Your task to perform on an android device: turn pop-ups on in chrome Image 0: 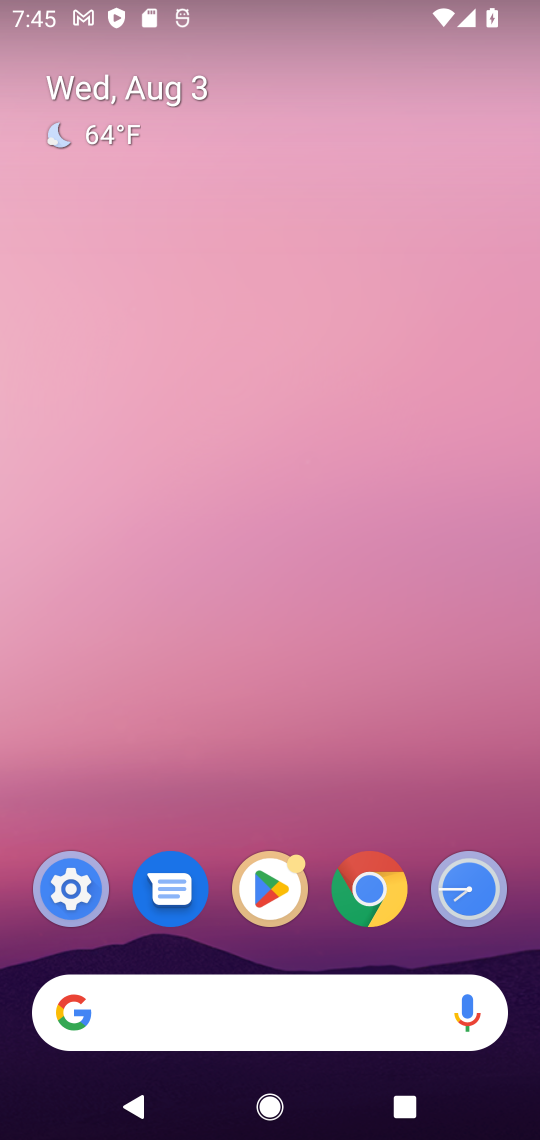
Step 0: click (391, 897)
Your task to perform on an android device: turn pop-ups on in chrome Image 1: 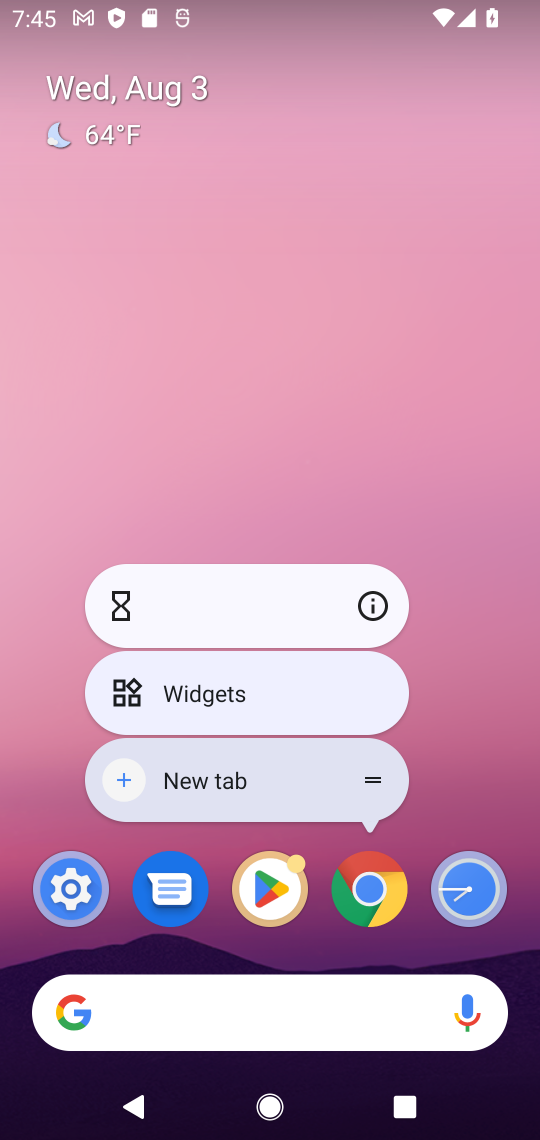
Step 1: click (377, 884)
Your task to perform on an android device: turn pop-ups on in chrome Image 2: 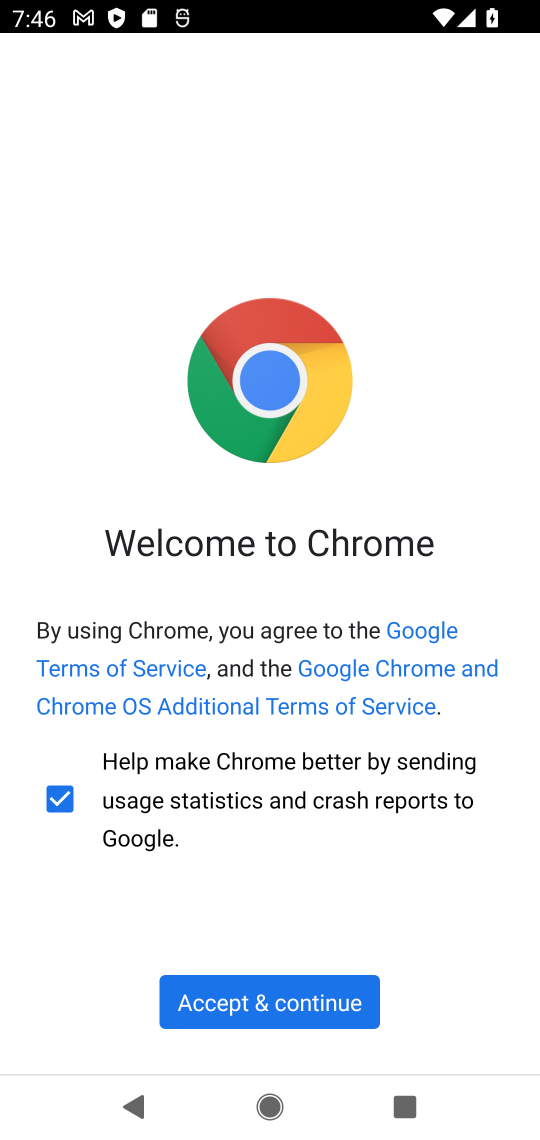
Step 2: click (286, 986)
Your task to perform on an android device: turn pop-ups on in chrome Image 3: 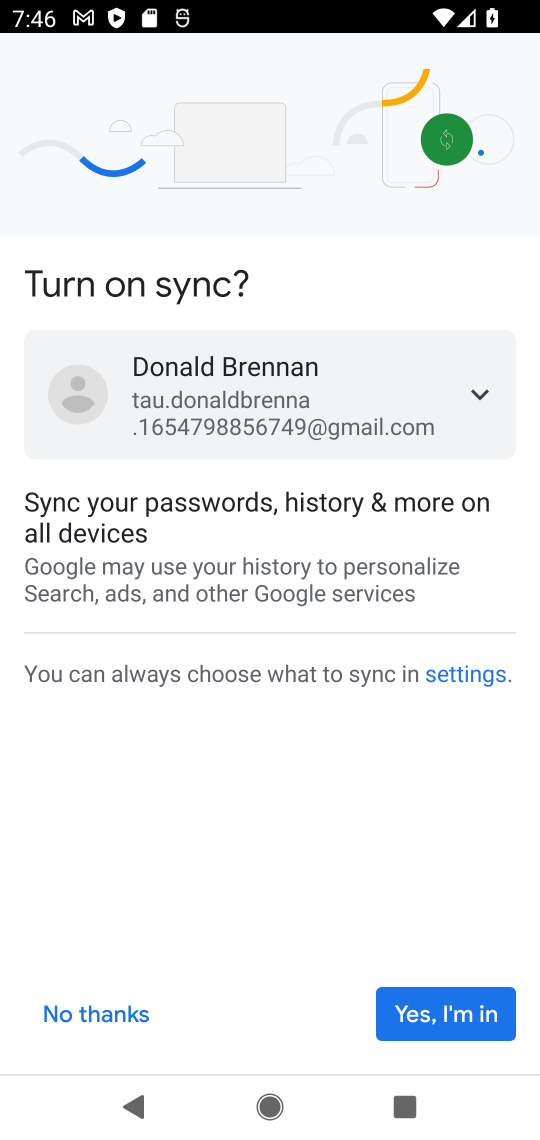
Step 3: click (469, 1019)
Your task to perform on an android device: turn pop-ups on in chrome Image 4: 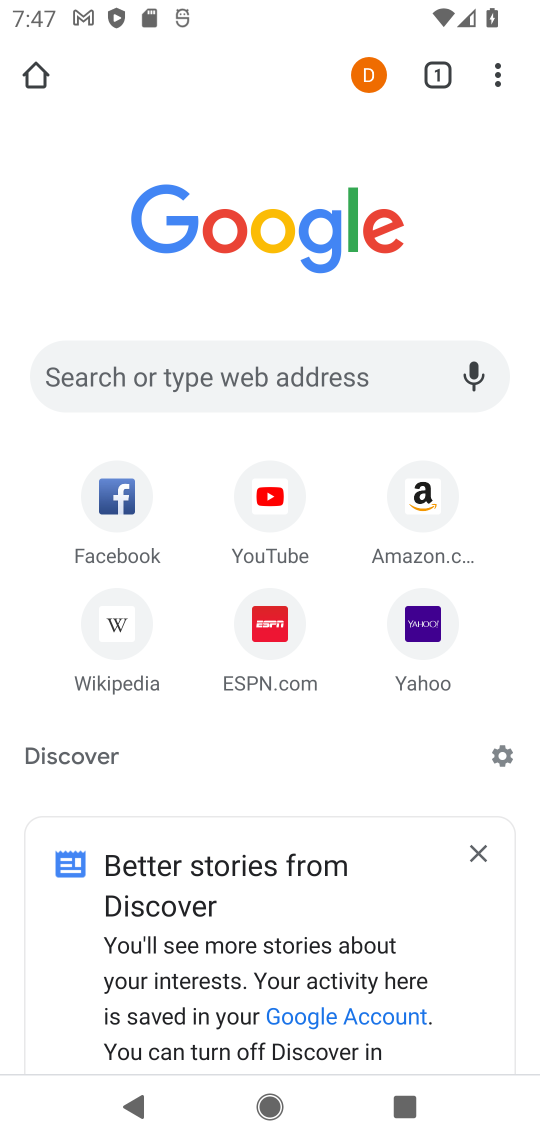
Step 4: drag from (501, 63) to (318, 700)
Your task to perform on an android device: turn pop-ups on in chrome Image 5: 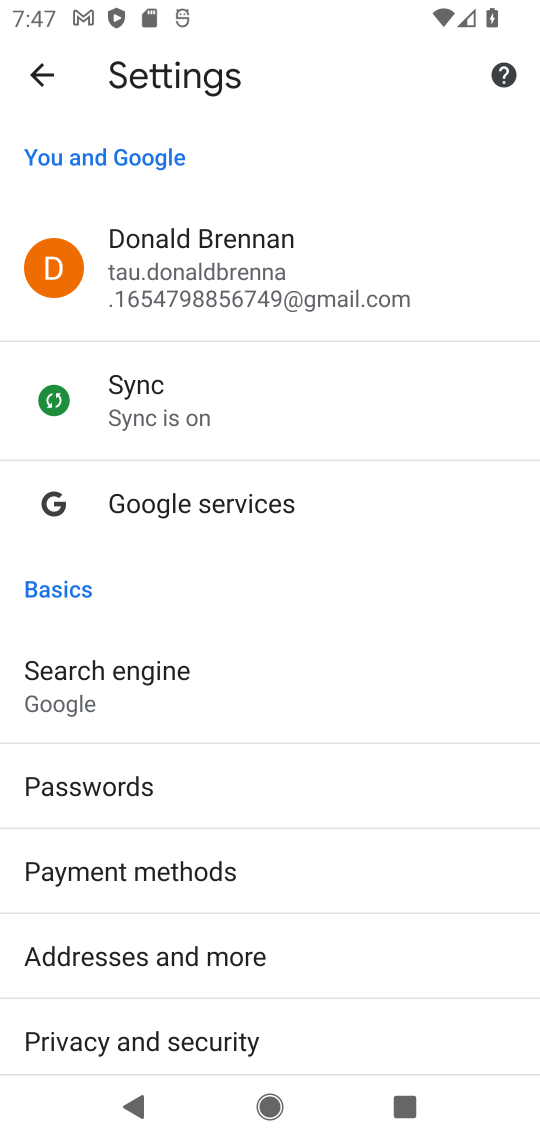
Step 5: drag from (173, 1005) to (113, 78)
Your task to perform on an android device: turn pop-ups on in chrome Image 6: 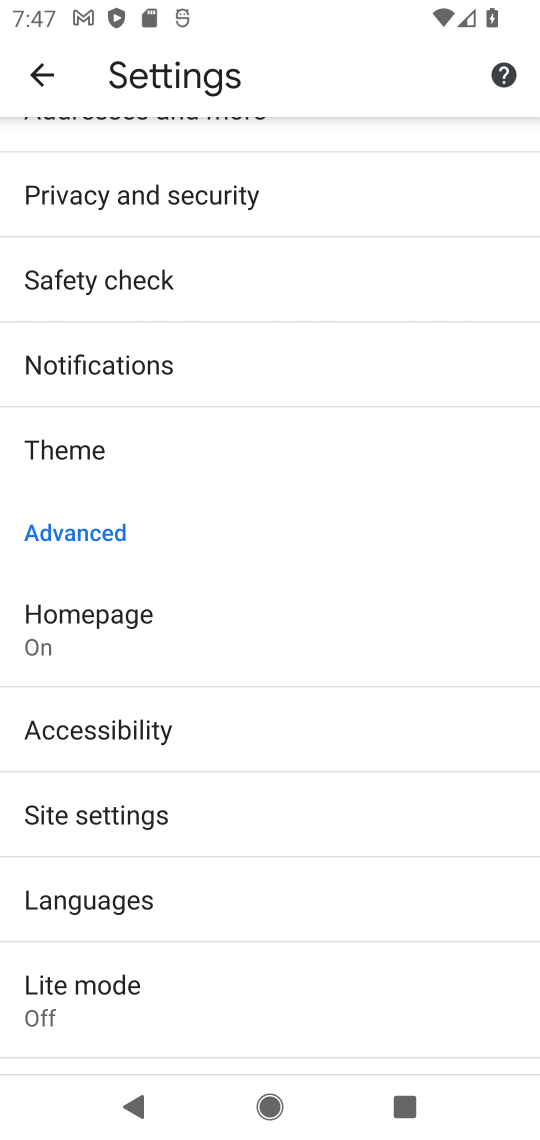
Step 6: click (127, 804)
Your task to perform on an android device: turn pop-ups on in chrome Image 7: 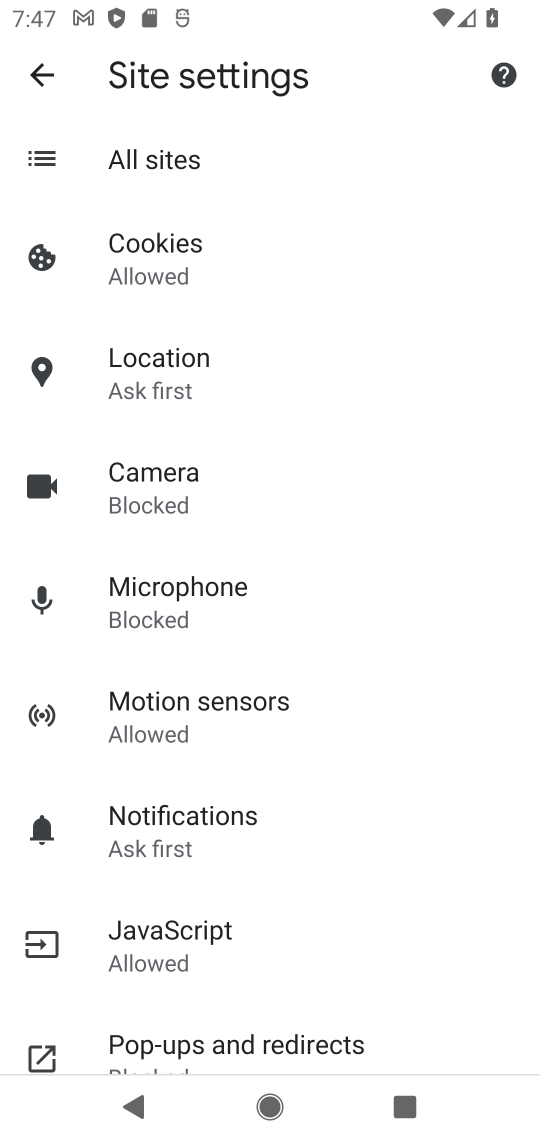
Step 7: click (201, 1041)
Your task to perform on an android device: turn pop-ups on in chrome Image 8: 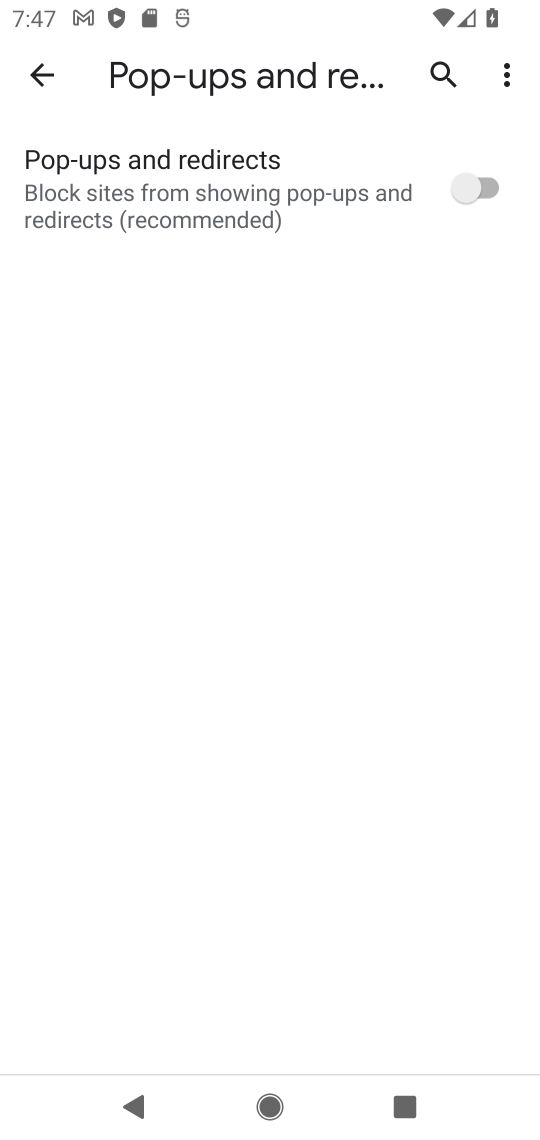
Step 8: click (485, 188)
Your task to perform on an android device: turn pop-ups on in chrome Image 9: 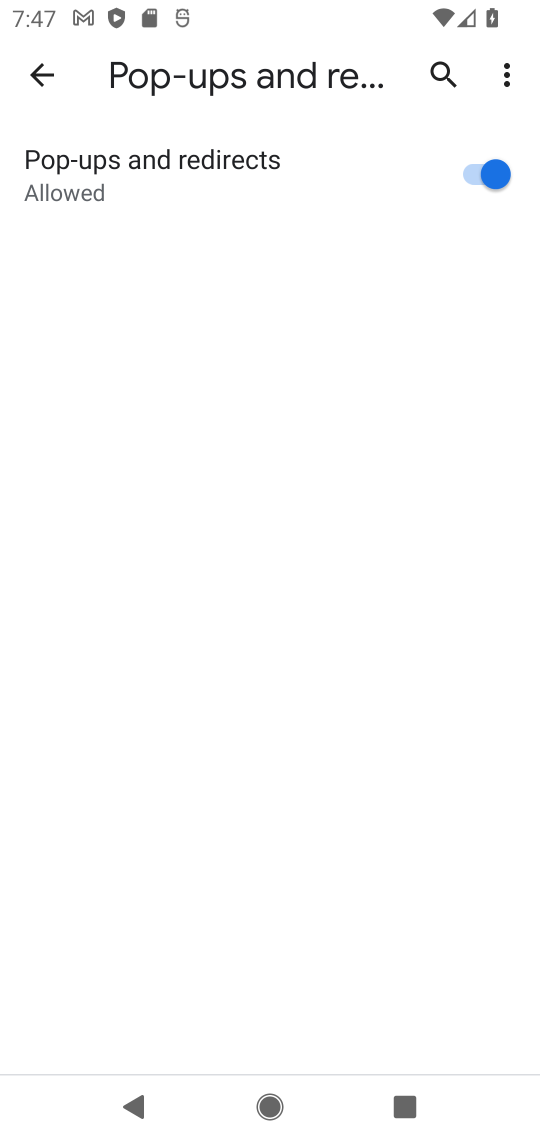
Step 9: task complete